Your task to perform on an android device: toggle notifications settings in the gmail app Image 0: 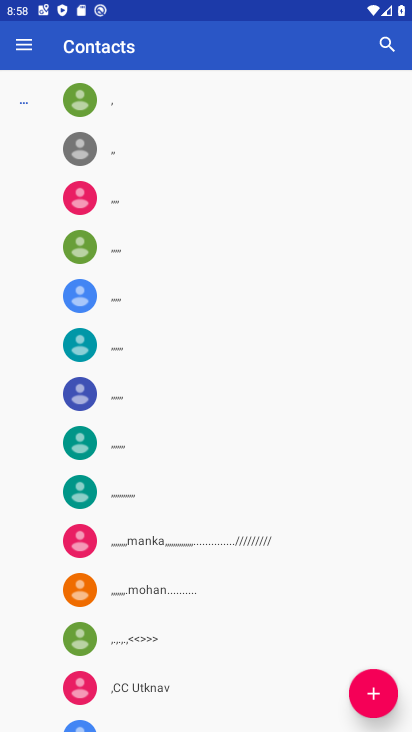
Step 0: press home button
Your task to perform on an android device: toggle notifications settings in the gmail app Image 1: 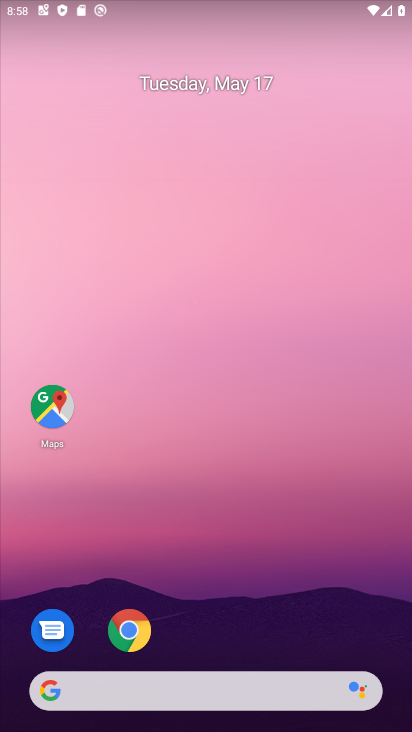
Step 1: drag from (191, 634) to (179, 277)
Your task to perform on an android device: toggle notifications settings in the gmail app Image 2: 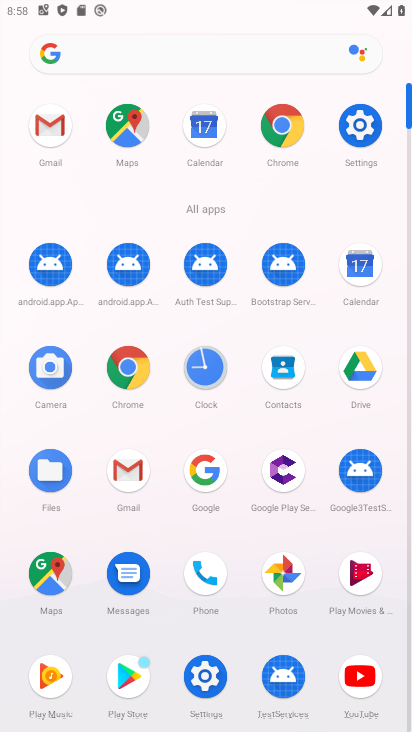
Step 2: click (53, 139)
Your task to perform on an android device: toggle notifications settings in the gmail app Image 3: 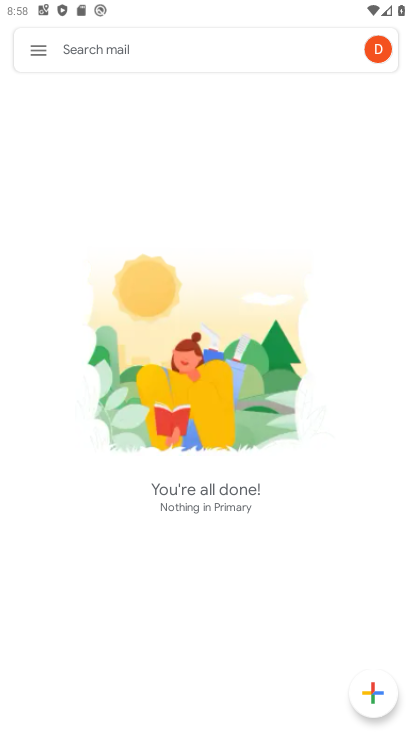
Step 3: click (42, 46)
Your task to perform on an android device: toggle notifications settings in the gmail app Image 4: 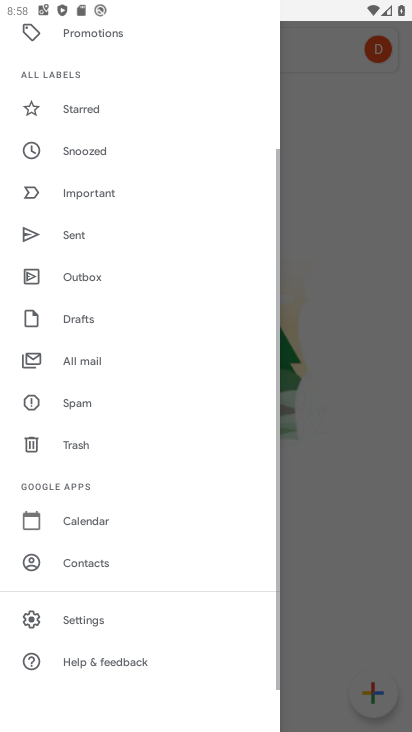
Step 4: click (68, 615)
Your task to perform on an android device: toggle notifications settings in the gmail app Image 5: 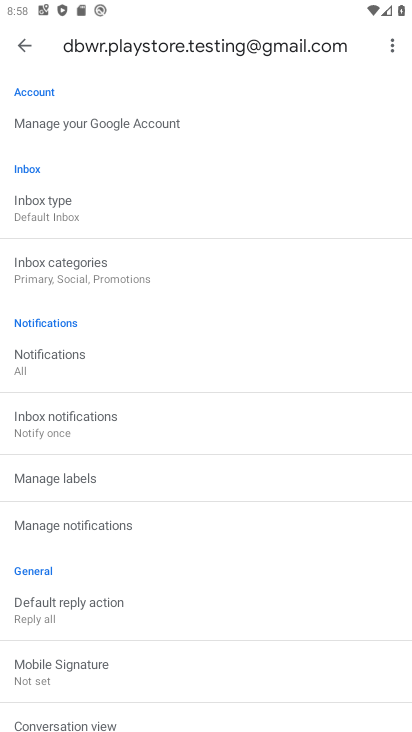
Step 5: click (67, 530)
Your task to perform on an android device: toggle notifications settings in the gmail app Image 6: 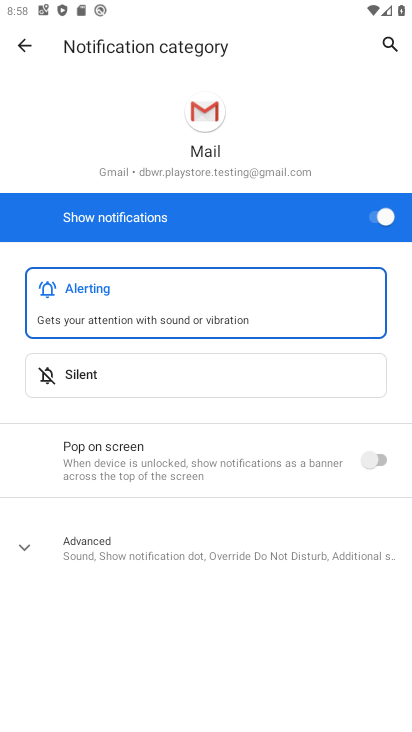
Step 6: click (386, 213)
Your task to perform on an android device: toggle notifications settings in the gmail app Image 7: 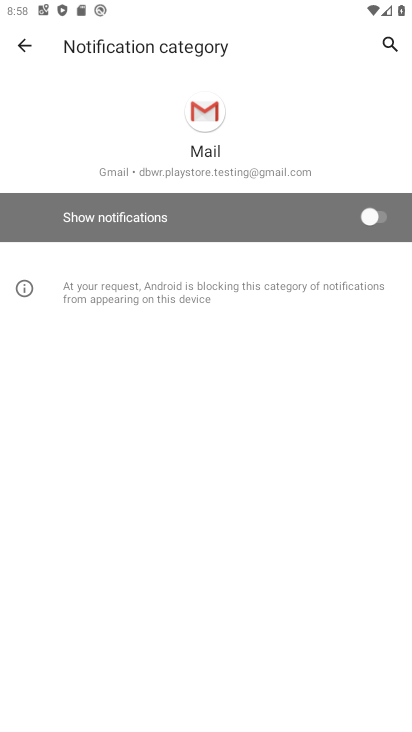
Step 7: task complete